Your task to perform on an android device: turn off location Image 0: 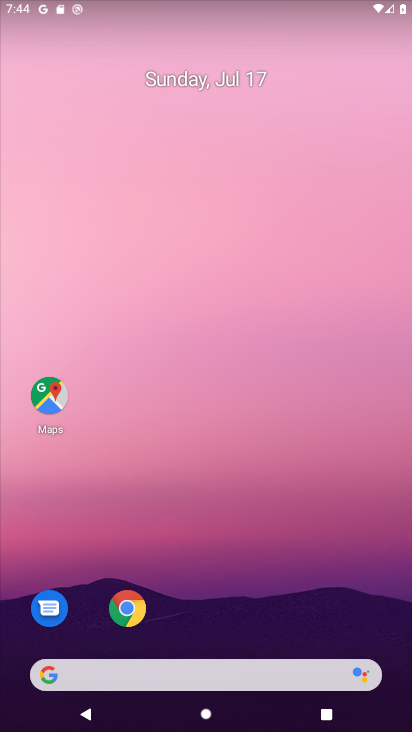
Step 0: drag from (261, 616) to (302, 365)
Your task to perform on an android device: turn off location Image 1: 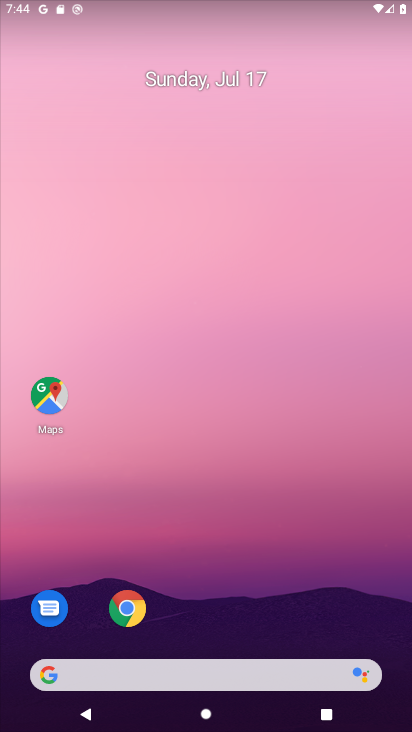
Step 1: drag from (187, 651) to (195, 166)
Your task to perform on an android device: turn off location Image 2: 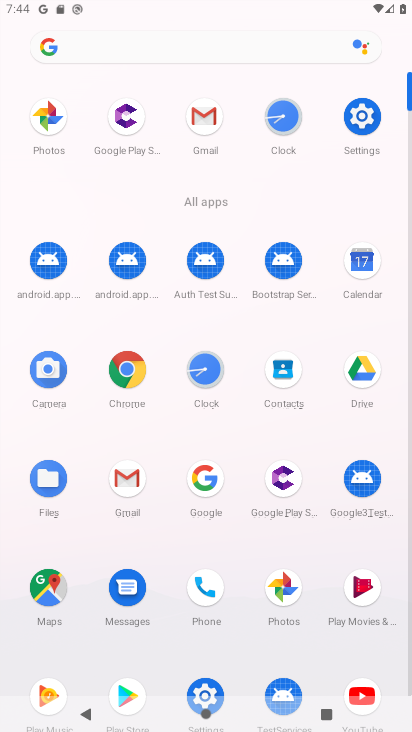
Step 2: click (357, 114)
Your task to perform on an android device: turn off location Image 3: 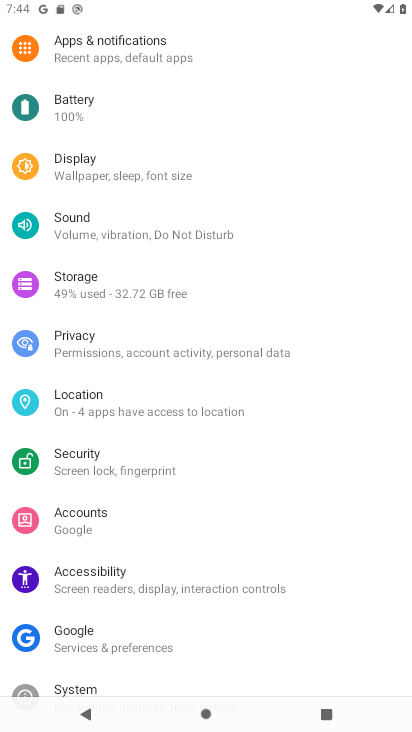
Step 3: click (170, 403)
Your task to perform on an android device: turn off location Image 4: 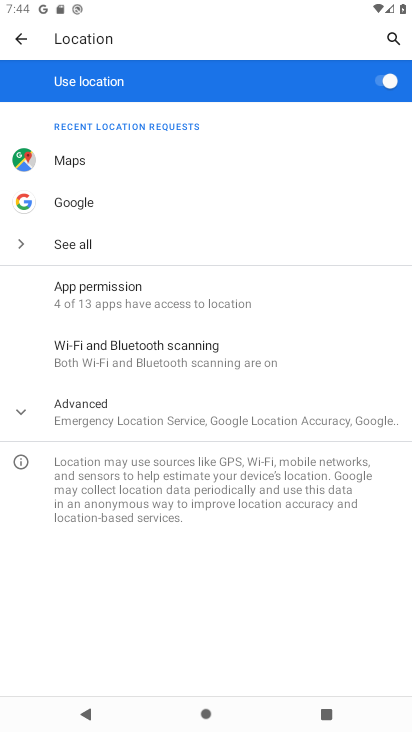
Step 4: click (385, 80)
Your task to perform on an android device: turn off location Image 5: 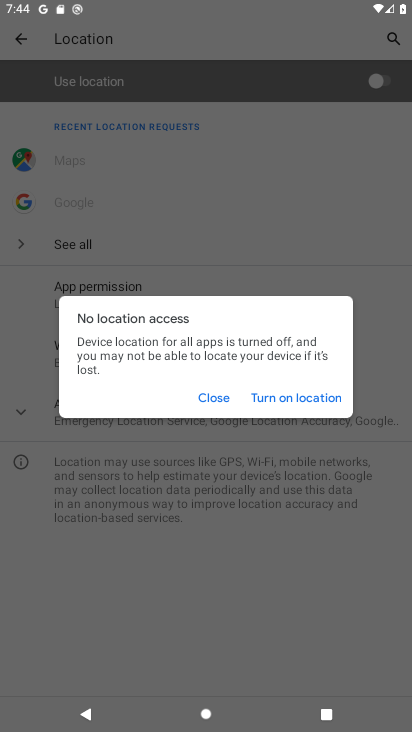
Step 5: click (217, 398)
Your task to perform on an android device: turn off location Image 6: 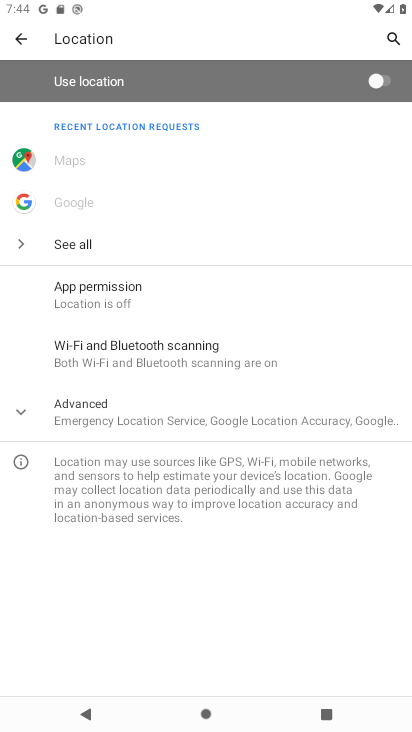
Step 6: task complete